Your task to perform on an android device: allow notifications from all sites in the chrome app Image 0: 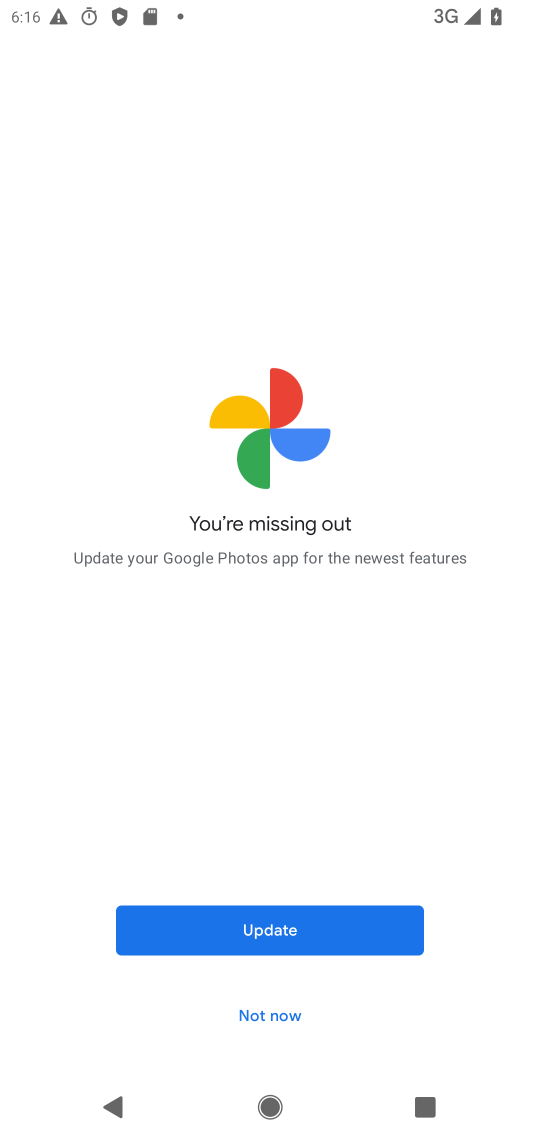
Step 0: press home button
Your task to perform on an android device: allow notifications from all sites in the chrome app Image 1: 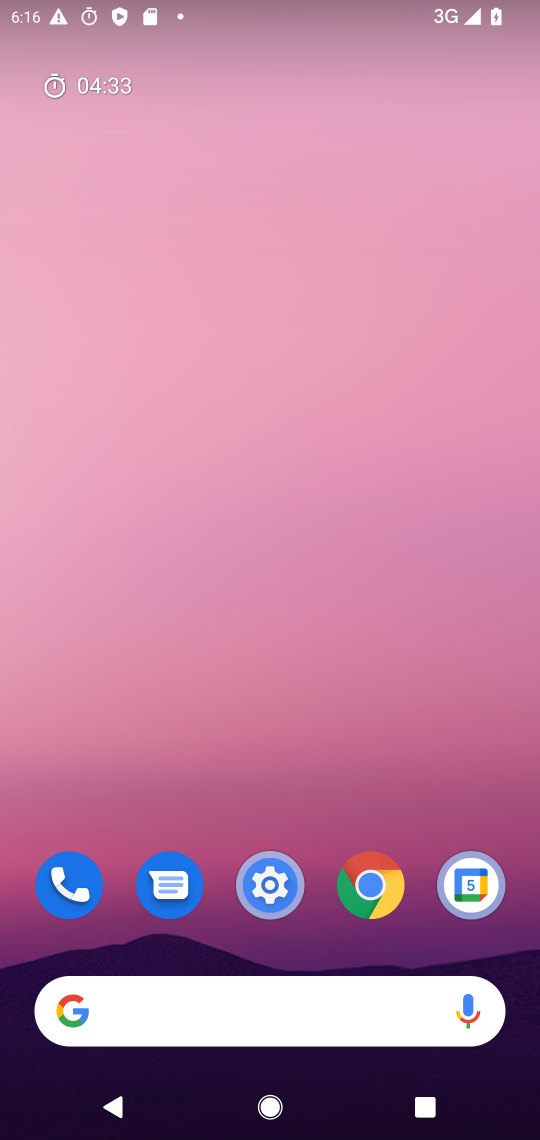
Step 1: click (387, 874)
Your task to perform on an android device: allow notifications from all sites in the chrome app Image 2: 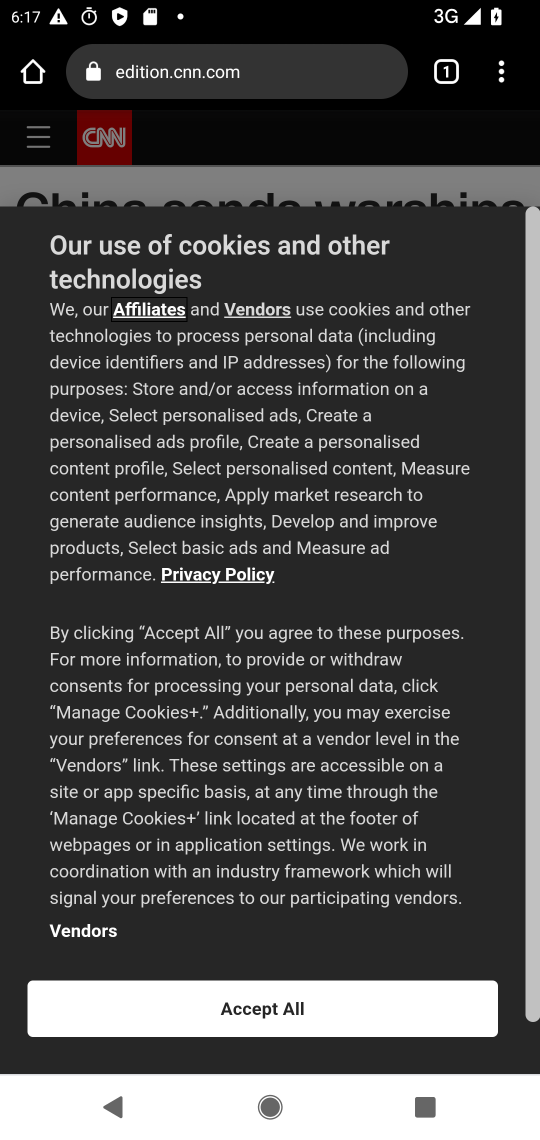
Step 2: click (502, 67)
Your task to perform on an android device: allow notifications from all sites in the chrome app Image 3: 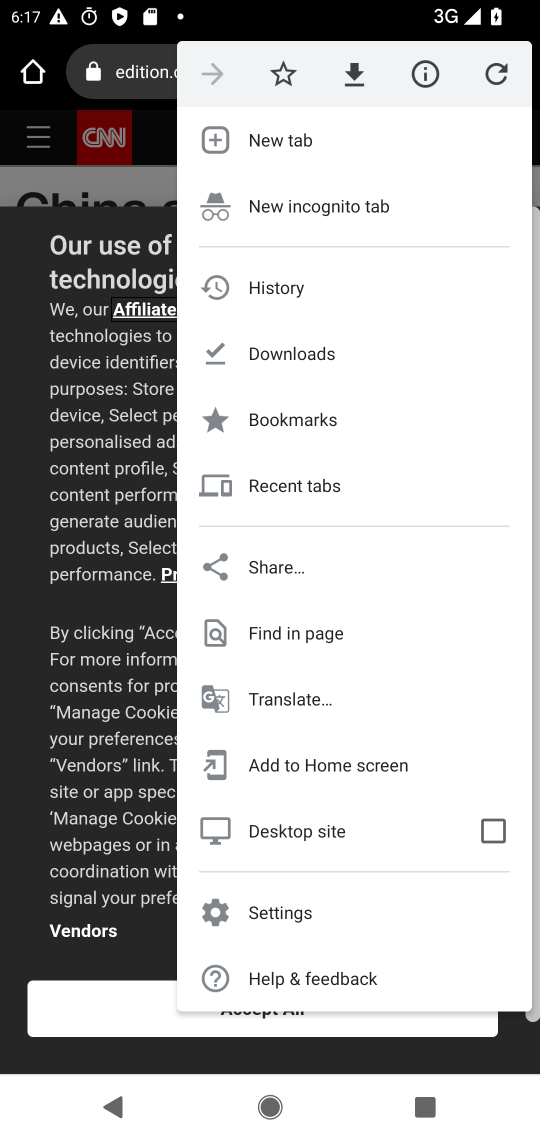
Step 3: click (288, 906)
Your task to perform on an android device: allow notifications from all sites in the chrome app Image 4: 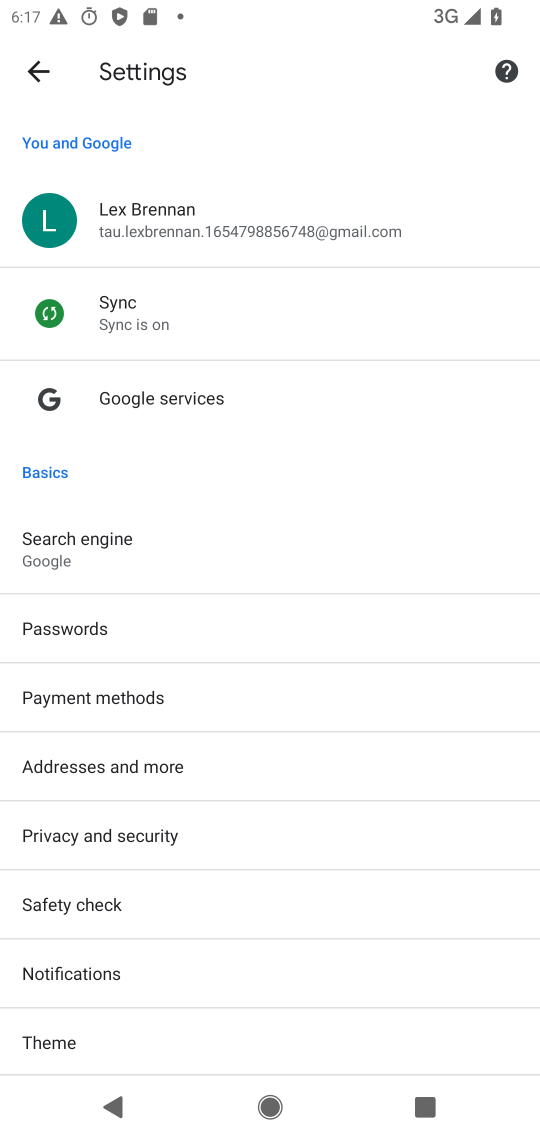
Step 4: drag from (102, 950) to (121, 733)
Your task to perform on an android device: allow notifications from all sites in the chrome app Image 5: 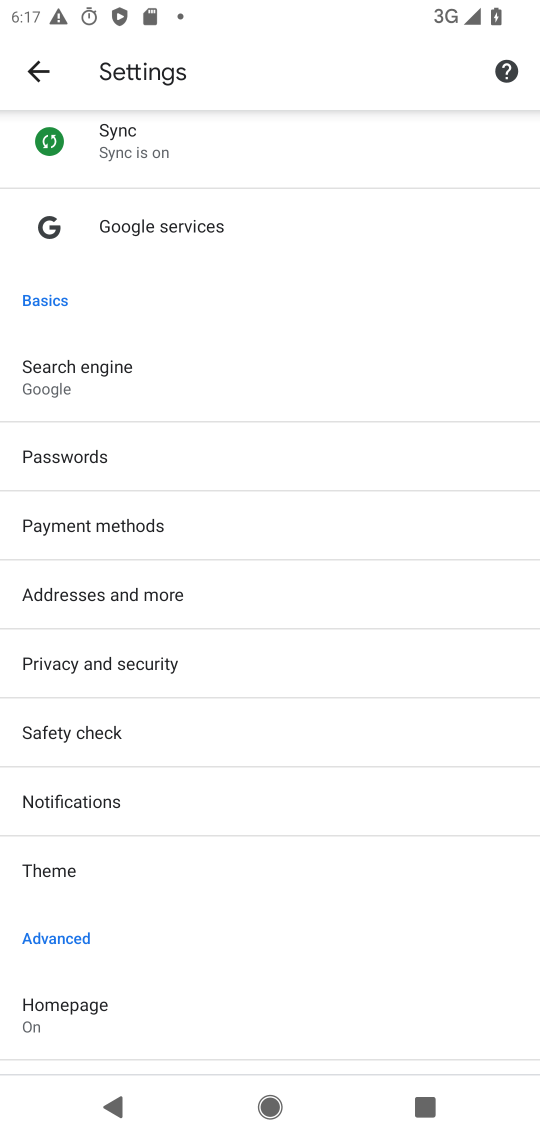
Step 5: click (86, 797)
Your task to perform on an android device: allow notifications from all sites in the chrome app Image 6: 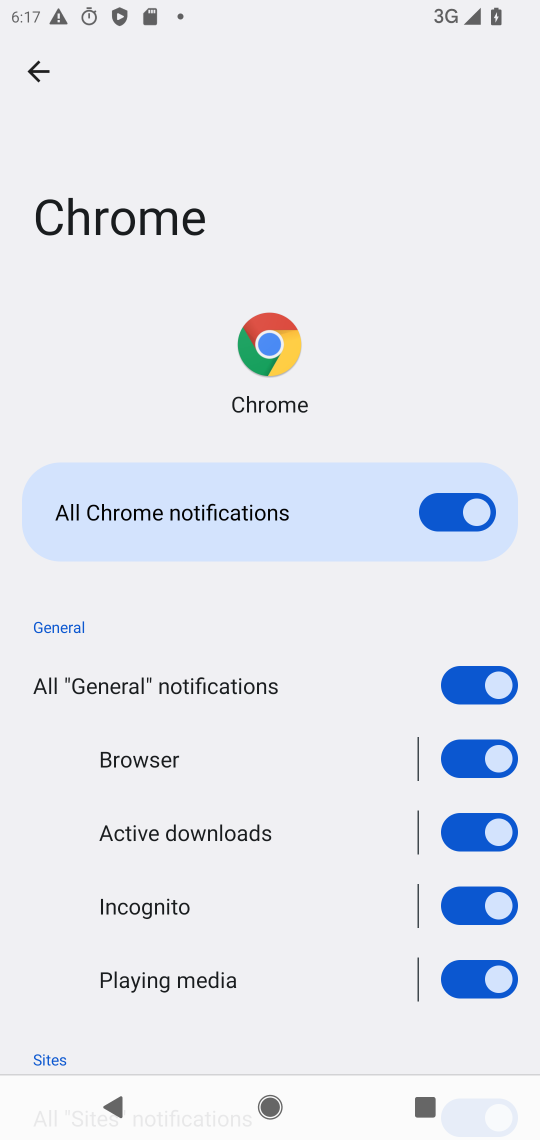
Step 6: task complete